Your task to perform on an android device: See recent photos Image 0: 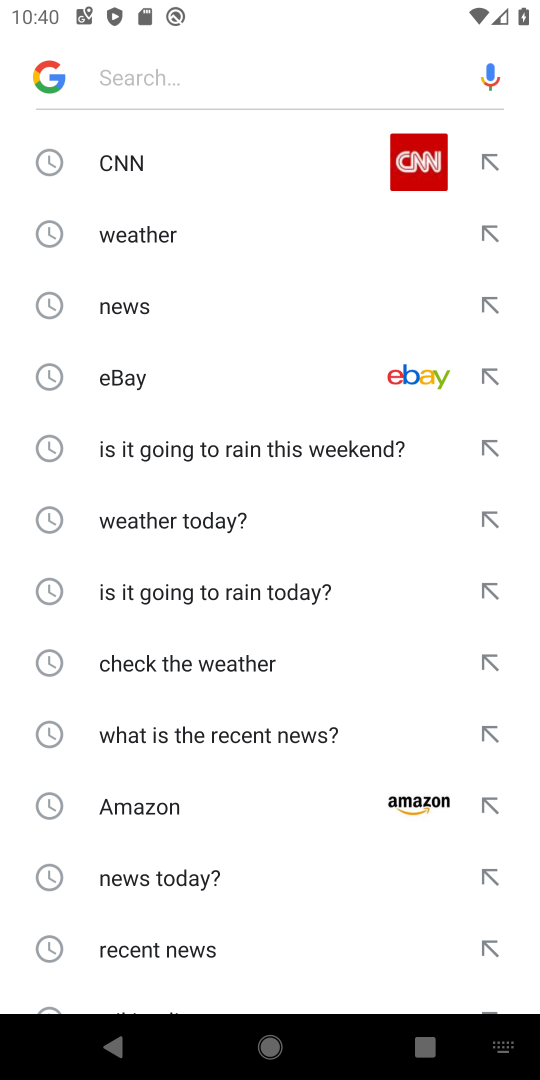
Step 0: press home button
Your task to perform on an android device: See recent photos Image 1: 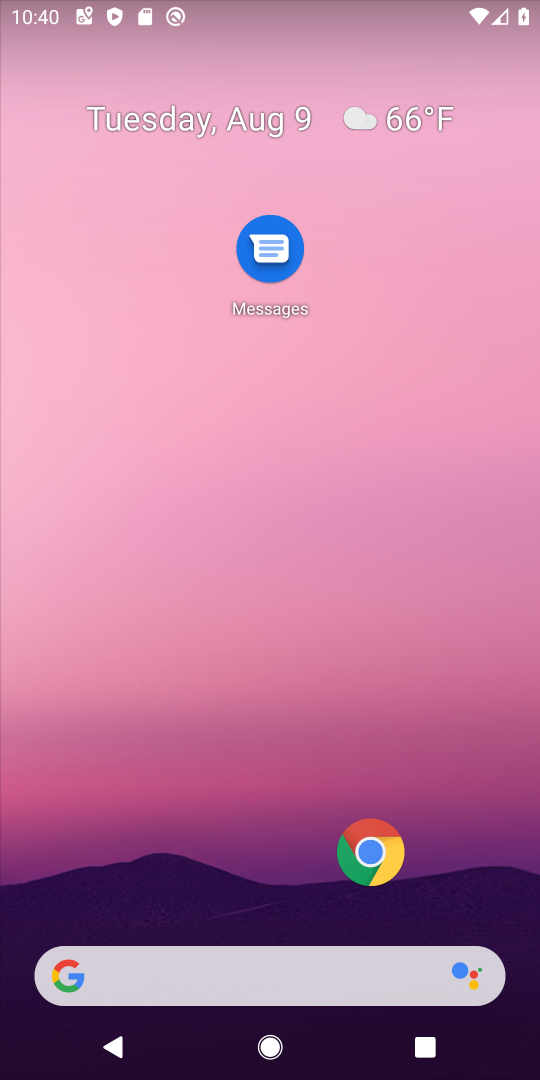
Step 1: drag from (293, 817) to (110, 105)
Your task to perform on an android device: See recent photos Image 2: 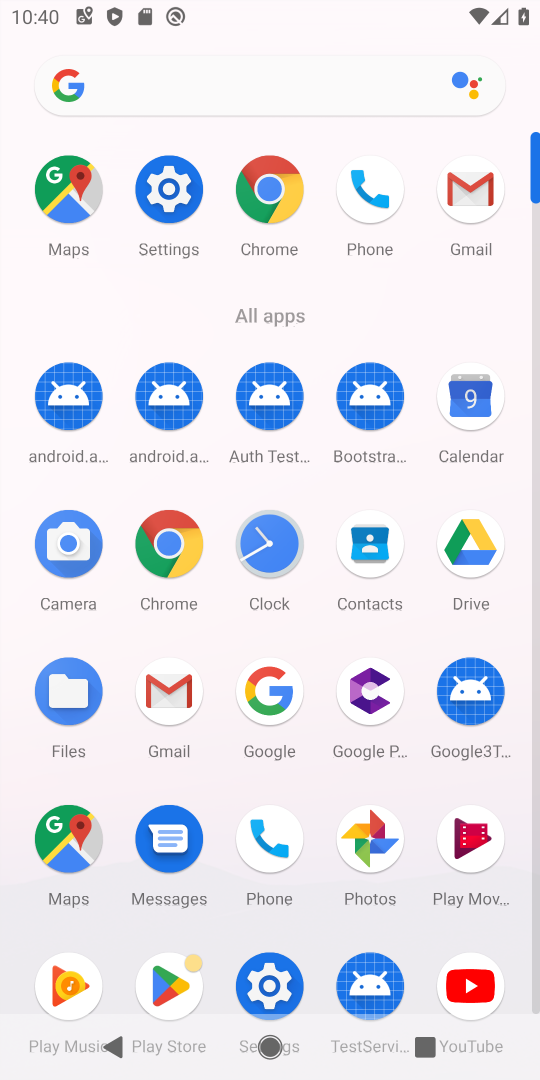
Step 2: click (376, 854)
Your task to perform on an android device: See recent photos Image 3: 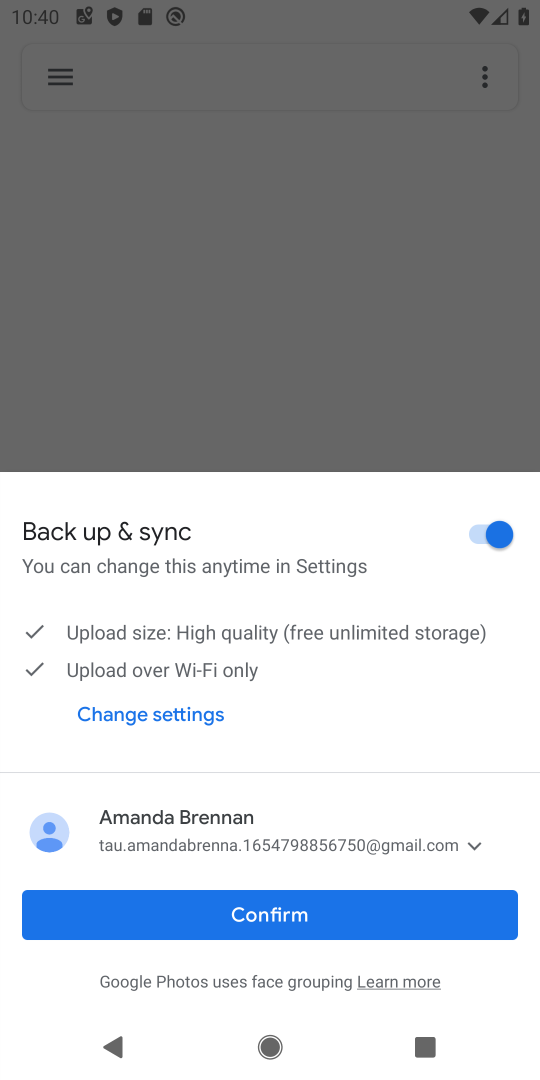
Step 3: click (301, 918)
Your task to perform on an android device: See recent photos Image 4: 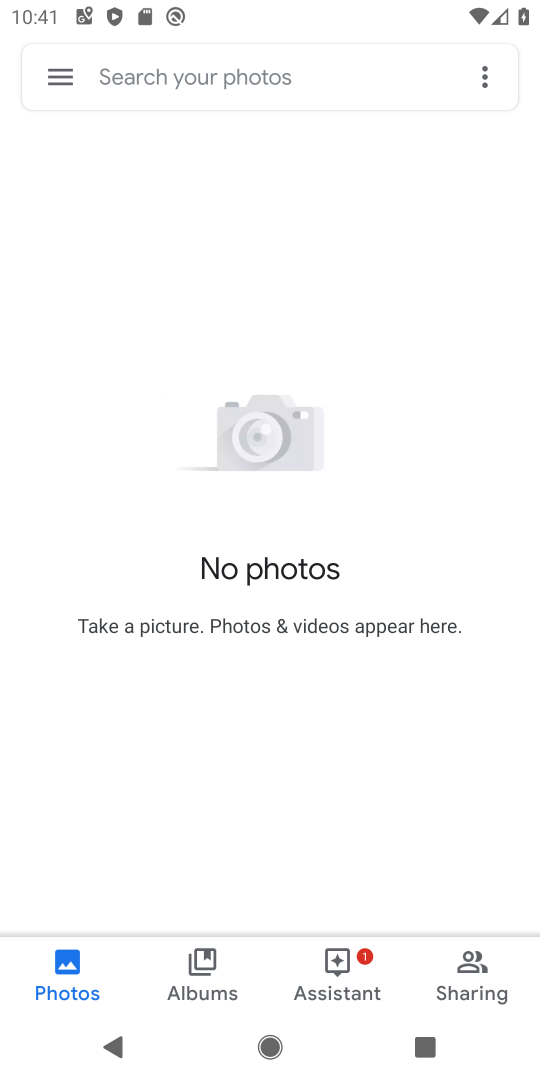
Step 4: task complete